Your task to perform on an android device: Open the calendar app, open the side menu, and click the "Day" option Image 0: 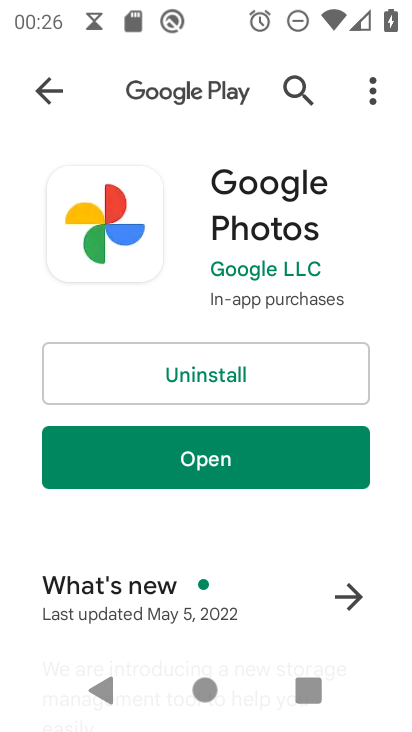
Step 0: press home button
Your task to perform on an android device: Open the calendar app, open the side menu, and click the "Day" option Image 1: 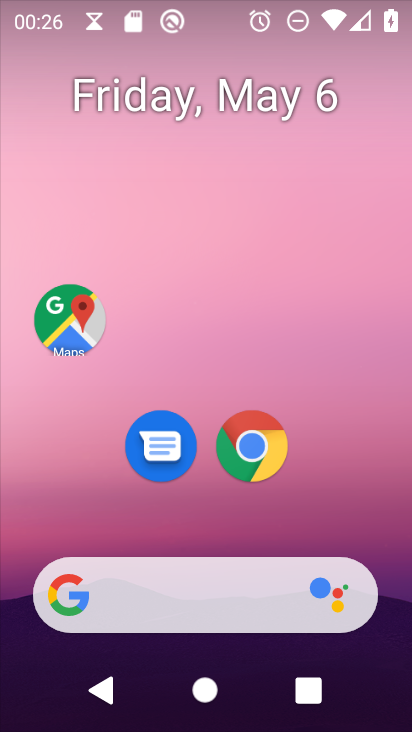
Step 1: drag from (312, 645) to (327, 251)
Your task to perform on an android device: Open the calendar app, open the side menu, and click the "Day" option Image 2: 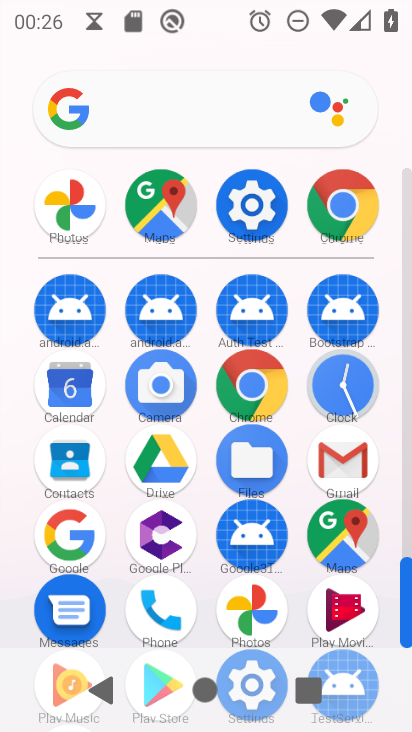
Step 2: click (64, 392)
Your task to perform on an android device: Open the calendar app, open the side menu, and click the "Day" option Image 3: 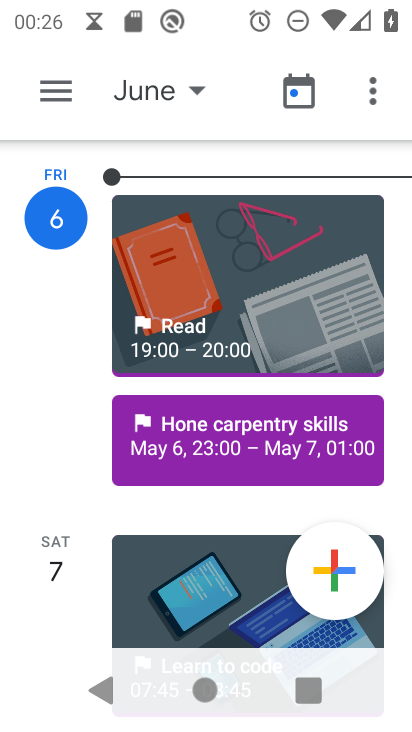
Step 3: click (39, 73)
Your task to perform on an android device: Open the calendar app, open the side menu, and click the "Day" option Image 4: 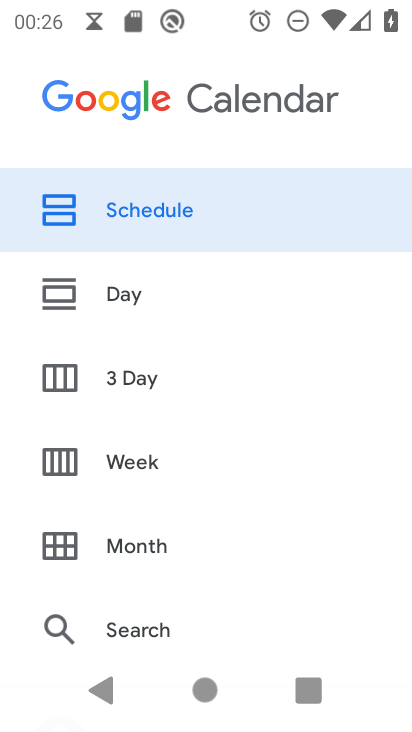
Step 4: click (102, 296)
Your task to perform on an android device: Open the calendar app, open the side menu, and click the "Day" option Image 5: 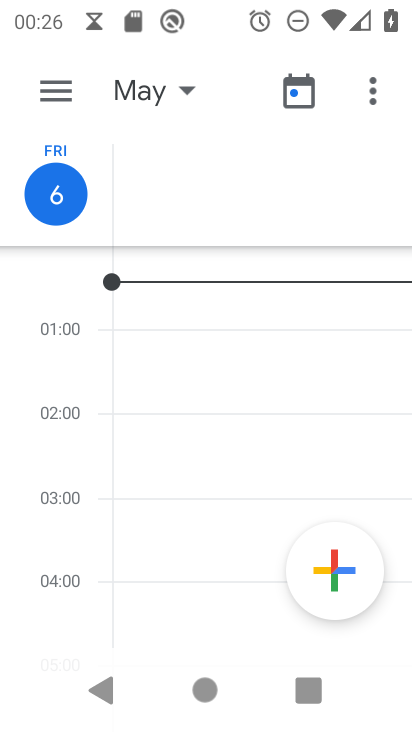
Step 5: task complete